Your task to perform on an android device: Open calendar and show me the second week of next month Image 0: 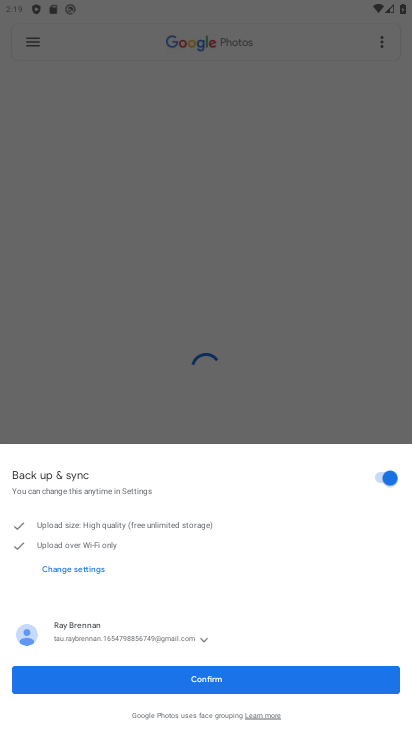
Step 0: press home button
Your task to perform on an android device: Open calendar and show me the second week of next month Image 1: 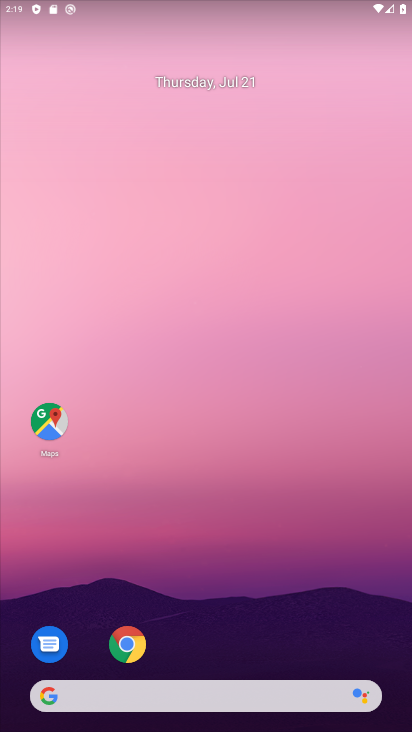
Step 1: drag from (307, 628) to (286, 48)
Your task to perform on an android device: Open calendar and show me the second week of next month Image 2: 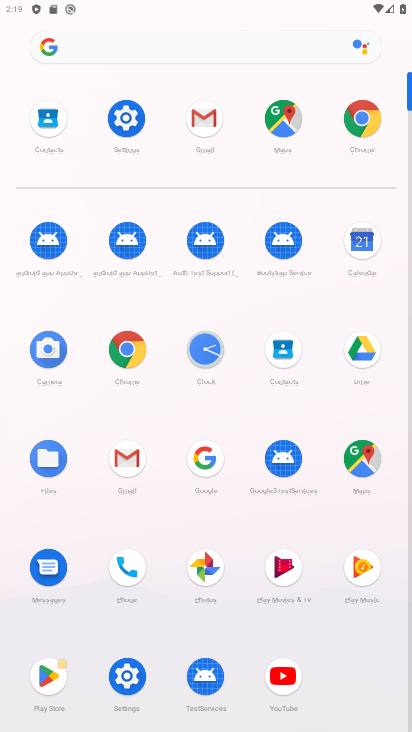
Step 2: click (365, 250)
Your task to perform on an android device: Open calendar and show me the second week of next month Image 3: 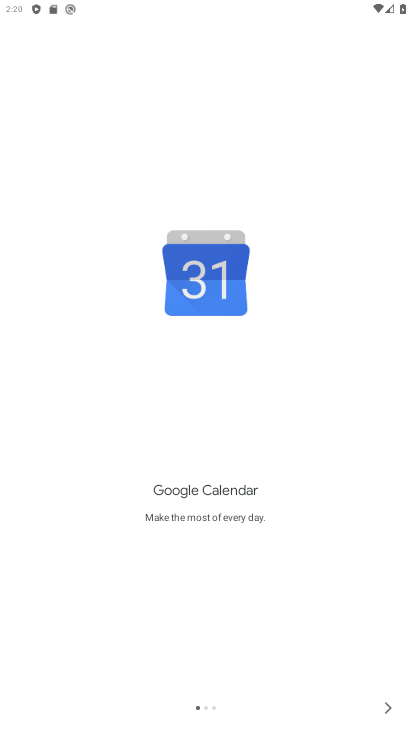
Step 3: click (391, 716)
Your task to perform on an android device: Open calendar and show me the second week of next month Image 4: 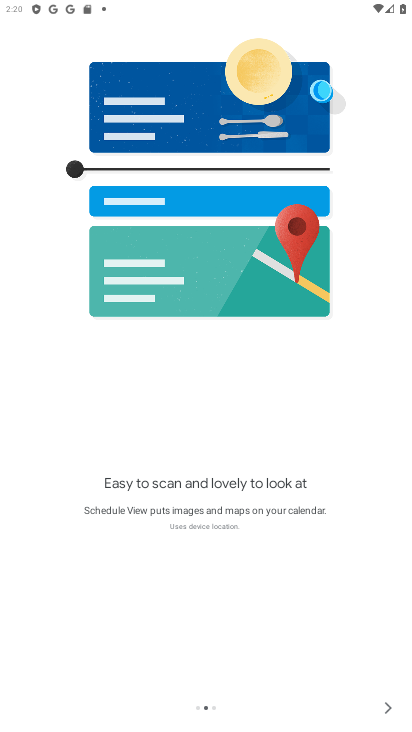
Step 4: click (386, 713)
Your task to perform on an android device: Open calendar and show me the second week of next month Image 5: 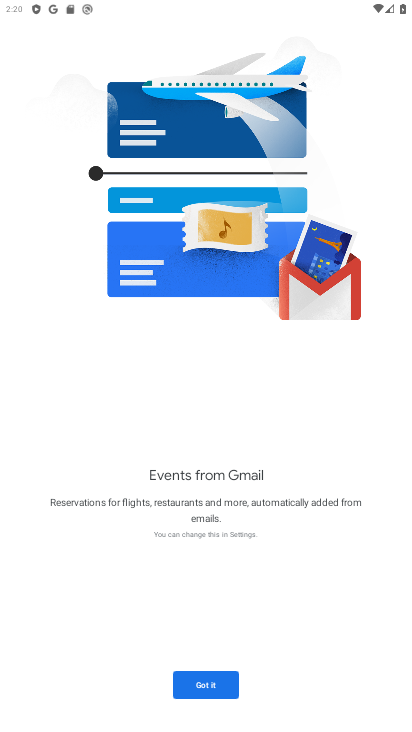
Step 5: click (216, 686)
Your task to perform on an android device: Open calendar and show me the second week of next month Image 6: 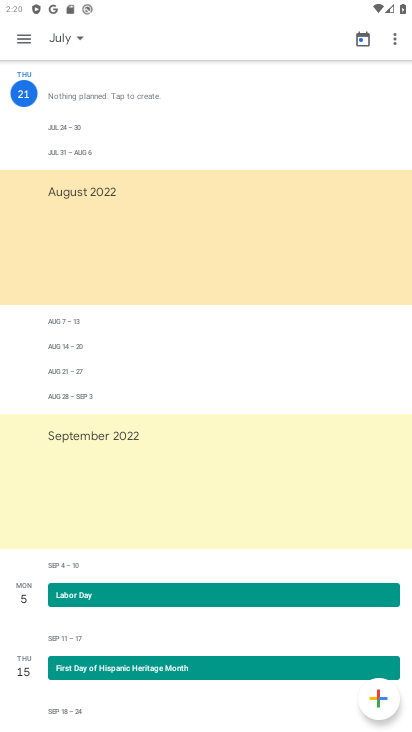
Step 6: click (20, 33)
Your task to perform on an android device: Open calendar and show me the second week of next month Image 7: 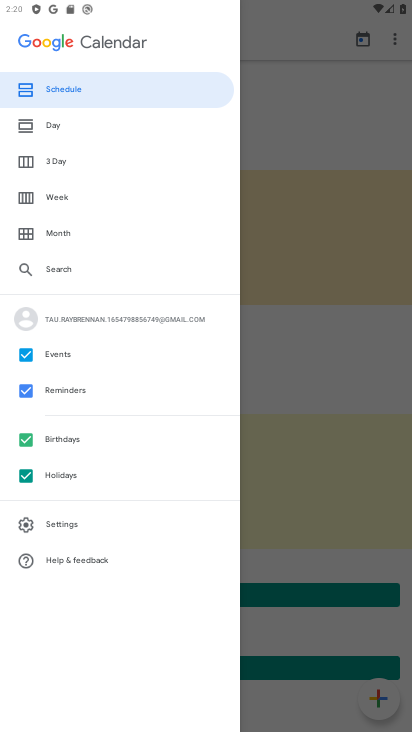
Step 7: click (79, 201)
Your task to perform on an android device: Open calendar and show me the second week of next month Image 8: 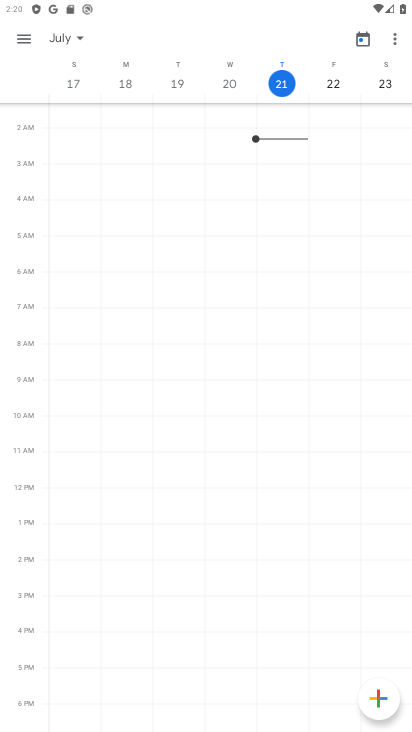
Step 8: click (82, 38)
Your task to perform on an android device: Open calendar and show me the second week of next month Image 9: 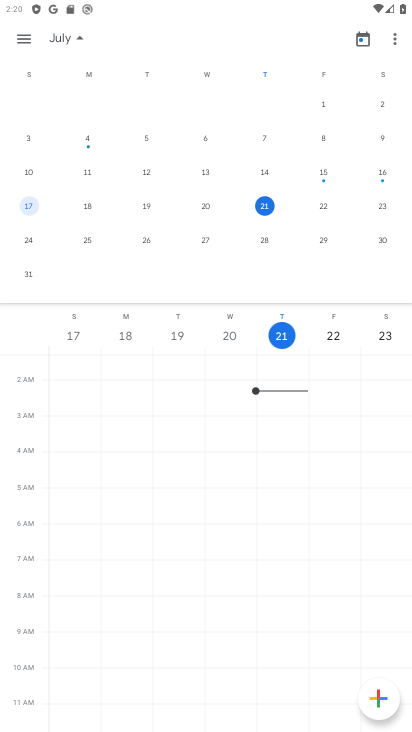
Step 9: drag from (361, 196) to (115, 189)
Your task to perform on an android device: Open calendar and show me the second week of next month Image 10: 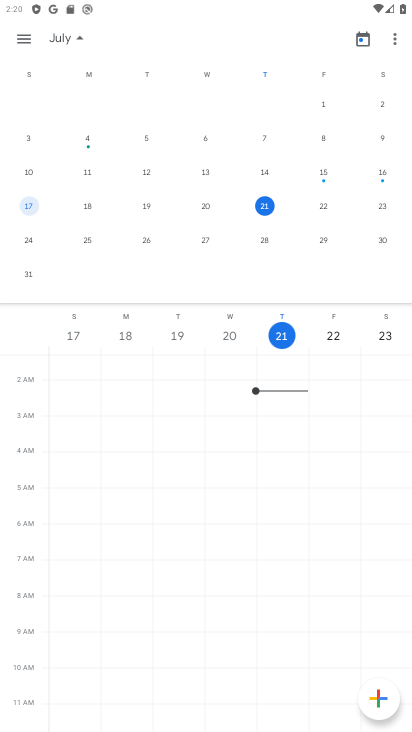
Step 10: click (268, 141)
Your task to perform on an android device: Open calendar and show me the second week of next month Image 11: 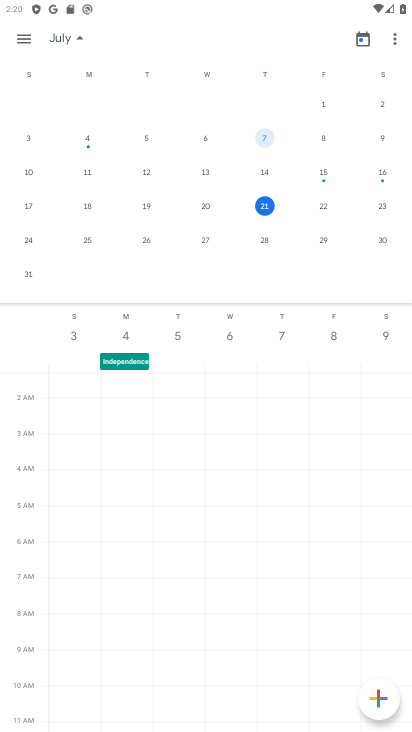
Step 11: task complete